Your task to perform on an android device: Go to notification settings Image 0: 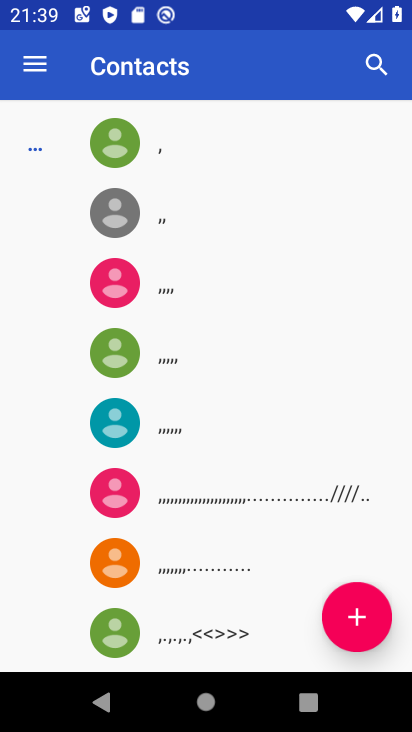
Step 0: press home button
Your task to perform on an android device: Go to notification settings Image 1: 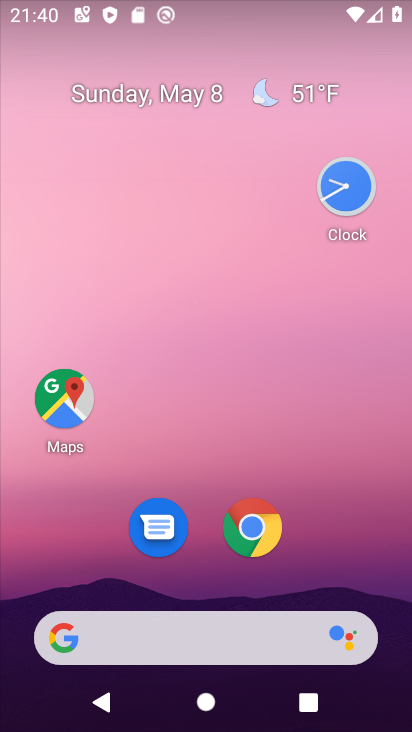
Step 1: click (213, 244)
Your task to perform on an android device: Go to notification settings Image 2: 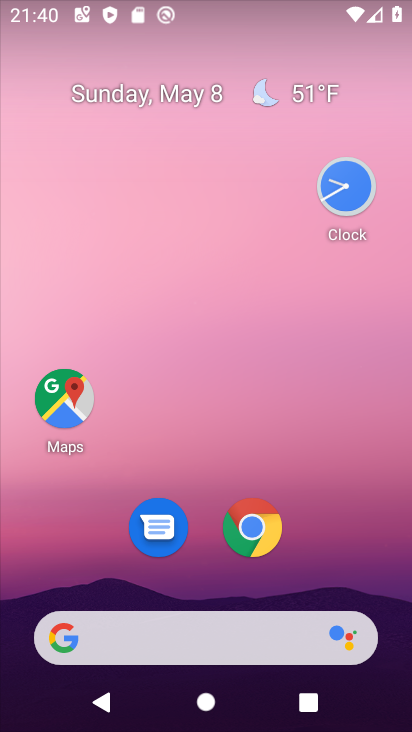
Step 2: drag from (146, 698) to (372, 10)
Your task to perform on an android device: Go to notification settings Image 3: 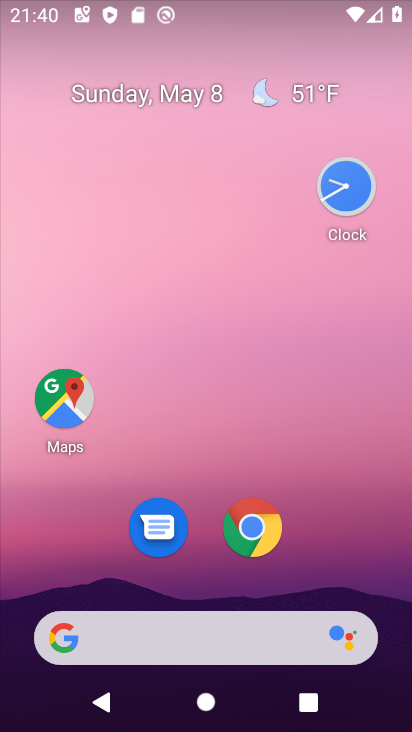
Step 3: drag from (124, 698) to (210, 367)
Your task to perform on an android device: Go to notification settings Image 4: 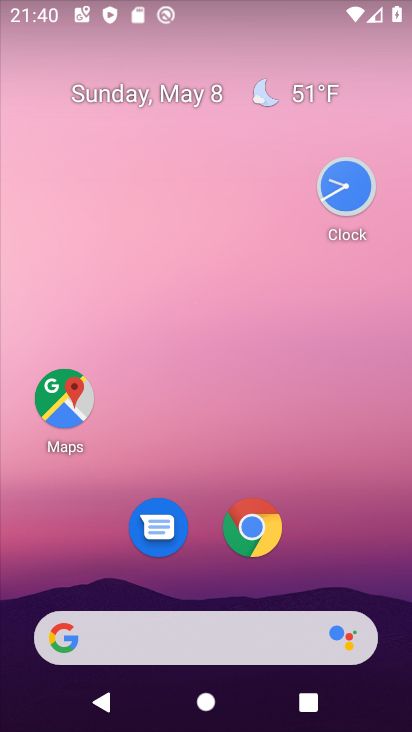
Step 4: drag from (153, 693) to (270, 103)
Your task to perform on an android device: Go to notification settings Image 5: 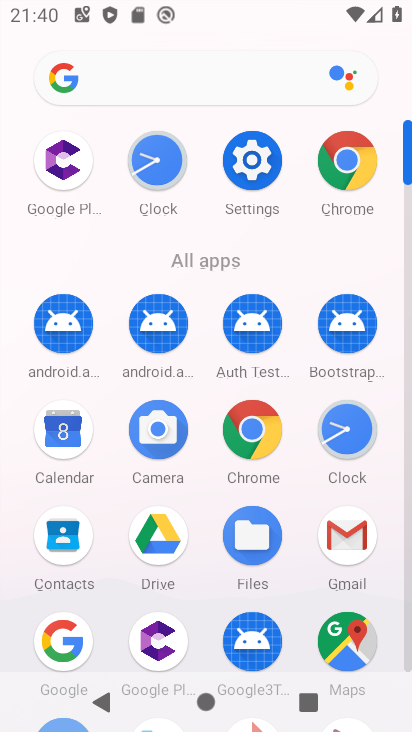
Step 5: click (259, 140)
Your task to perform on an android device: Go to notification settings Image 6: 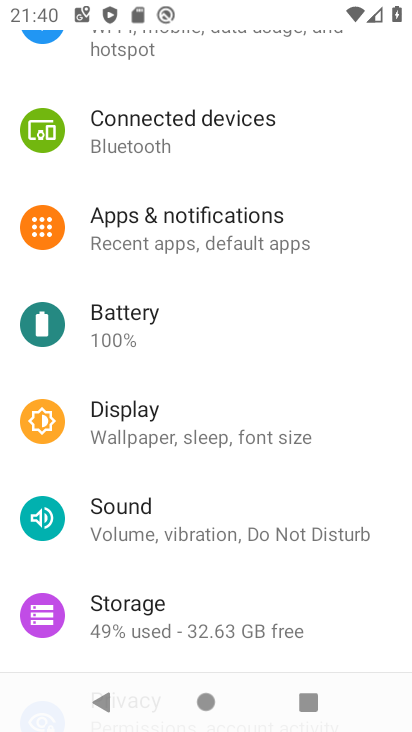
Step 6: click (212, 223)
Your task to perform on an android device: Go to notification settings Image 7: 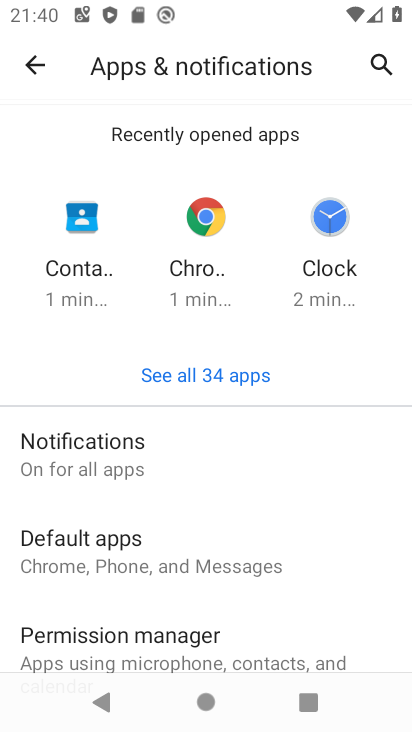
Step 7: task complete